Your task to perform on an android device: Show me recent news Image 0: 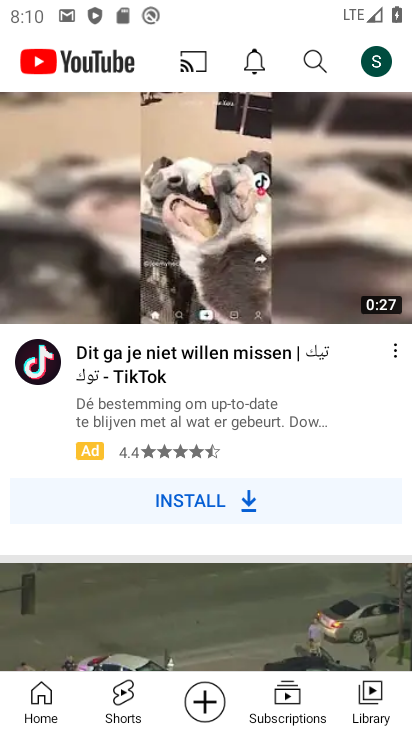
Step 0: press home button
Your task to perform on an android device: Show me recent news Image 1: 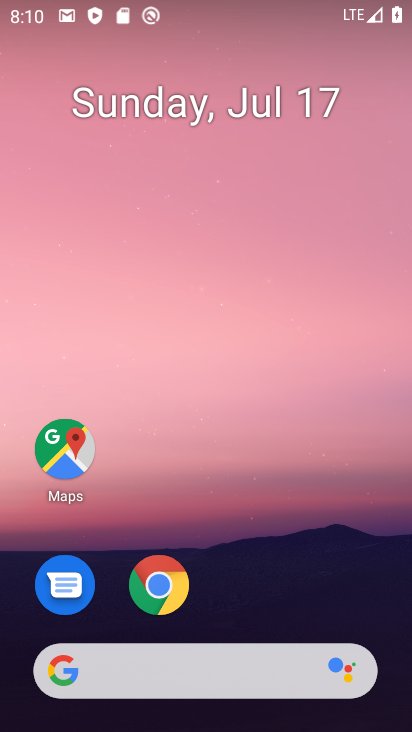
Step 1: click (174, 671)
Your task to perform on an android device: Show me recent news Image 2: 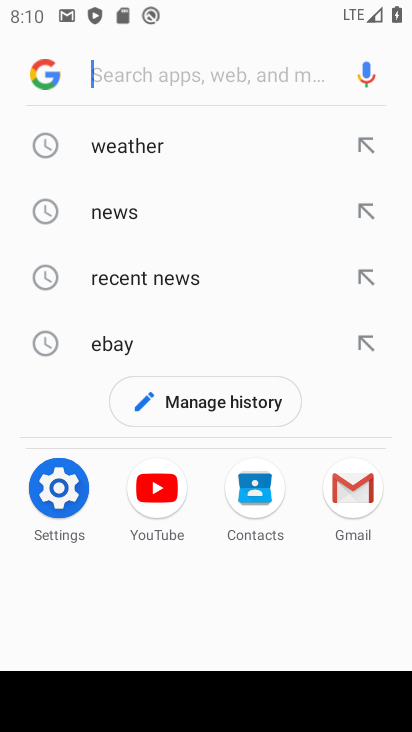
Step 2: click (120, 274)
Your task to perform on an android device: Show me recent news Image 3: 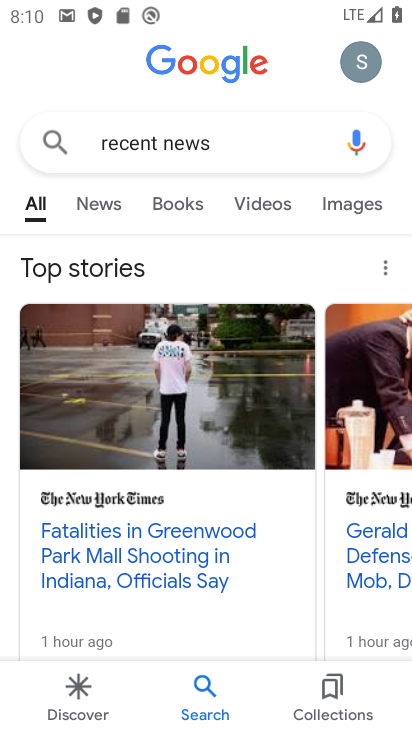
Step 3: click (102, 203)
Your task to perform on an android device: Show me recent news Image 4: 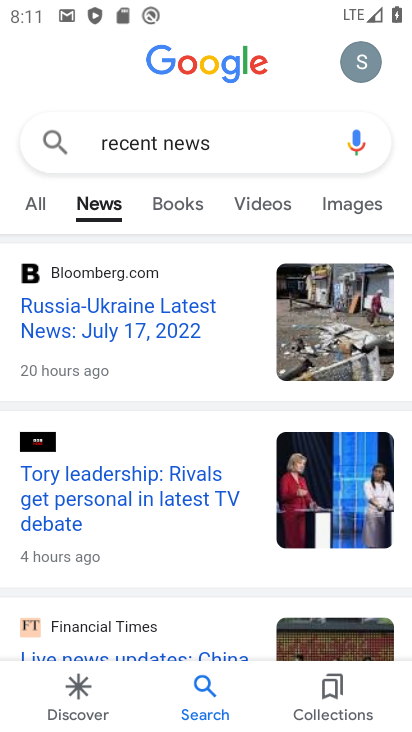
Step 4: task complete